Your task to perform on an android device: empty trash in the gmail app Image 0: 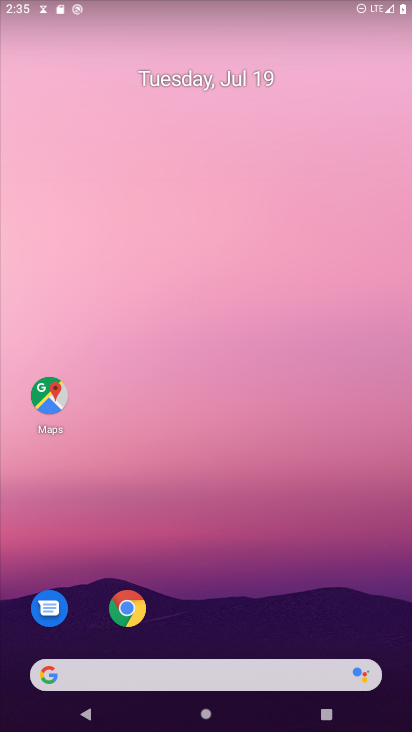
Step 0: drag from (318, 646) to (368, 45)
Your task to perform on an android device: empty trash in the gmail app Image 1: 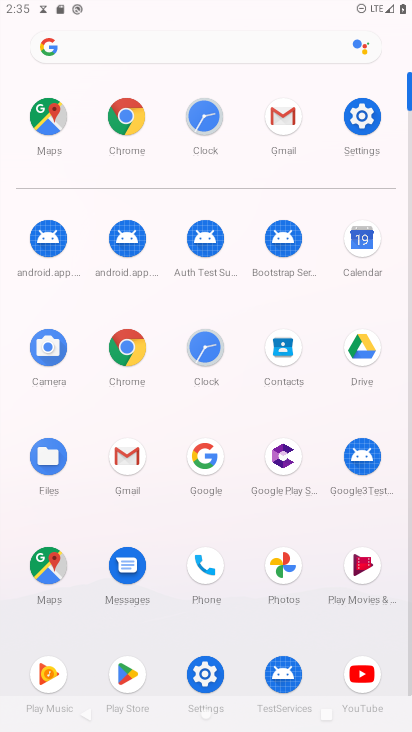
Step 1: click (125, 459)
Your task to perform on an android device: empty trash in the gmail app Image 2: 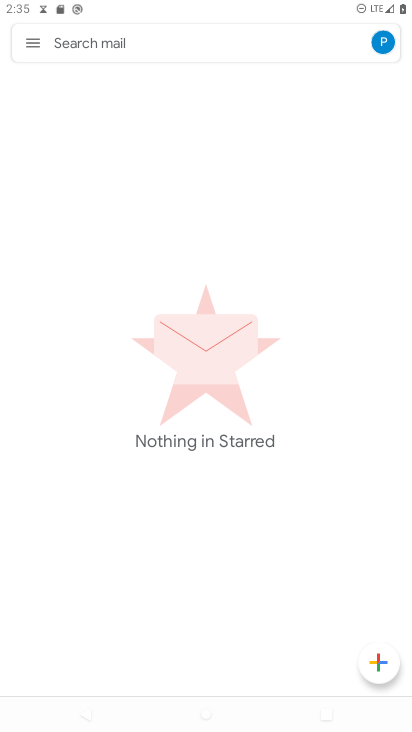
Step 2: click (42, 43)
Your task to perform on an android device: empty trash in the gmail app Image 3: 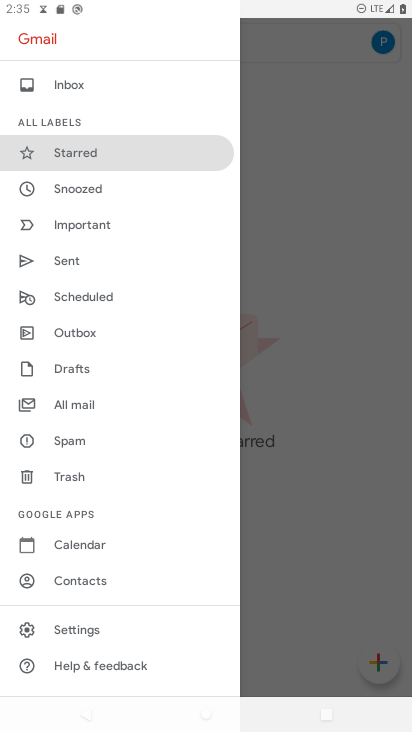
Step 3: click (90, 475)
Your task to perform on an android device: empty trash in the gmail app Image 4: 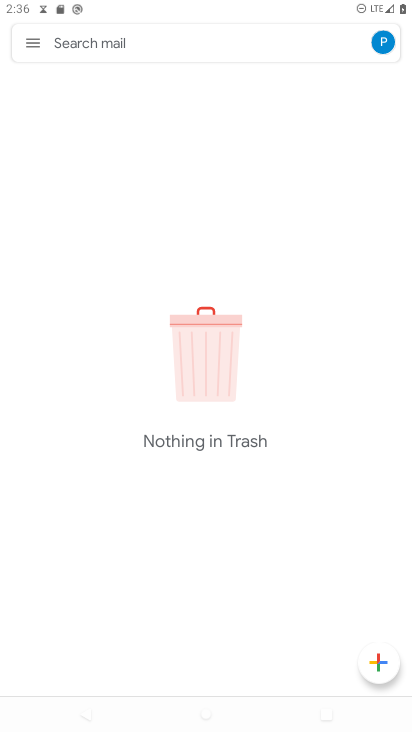
Step 4: task complete